Your task to perform on an android device: Open Google Maps and go to "Timeline" Image 0: 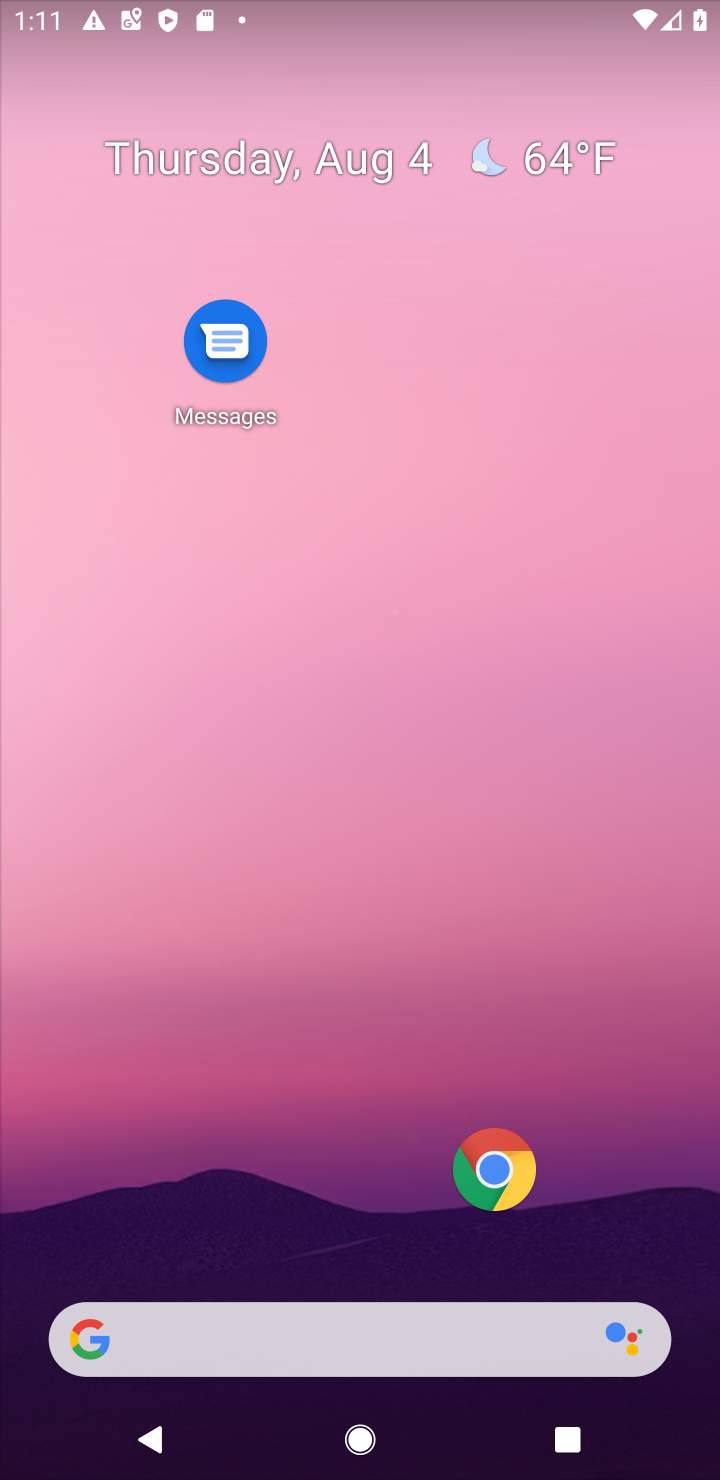
Step 0: drag from (260, 216) to (292, 31)
Your task to perform on an android device: Open Google Maps and go to "Timeline" Image 1: 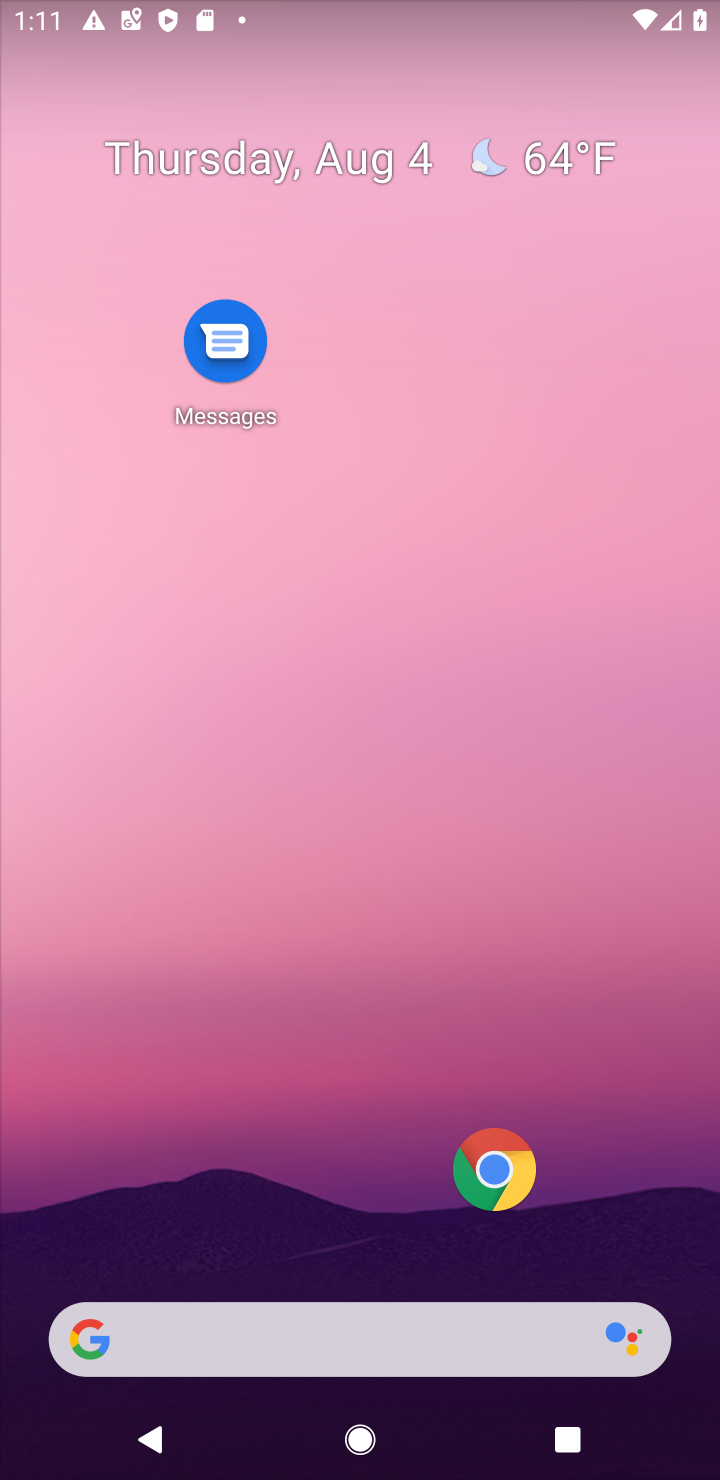
Step 1: drag from (255, 499) to (321, 0)
Your task to perform on an android device: Open Google Maps and go to "Timeline" Image 2: 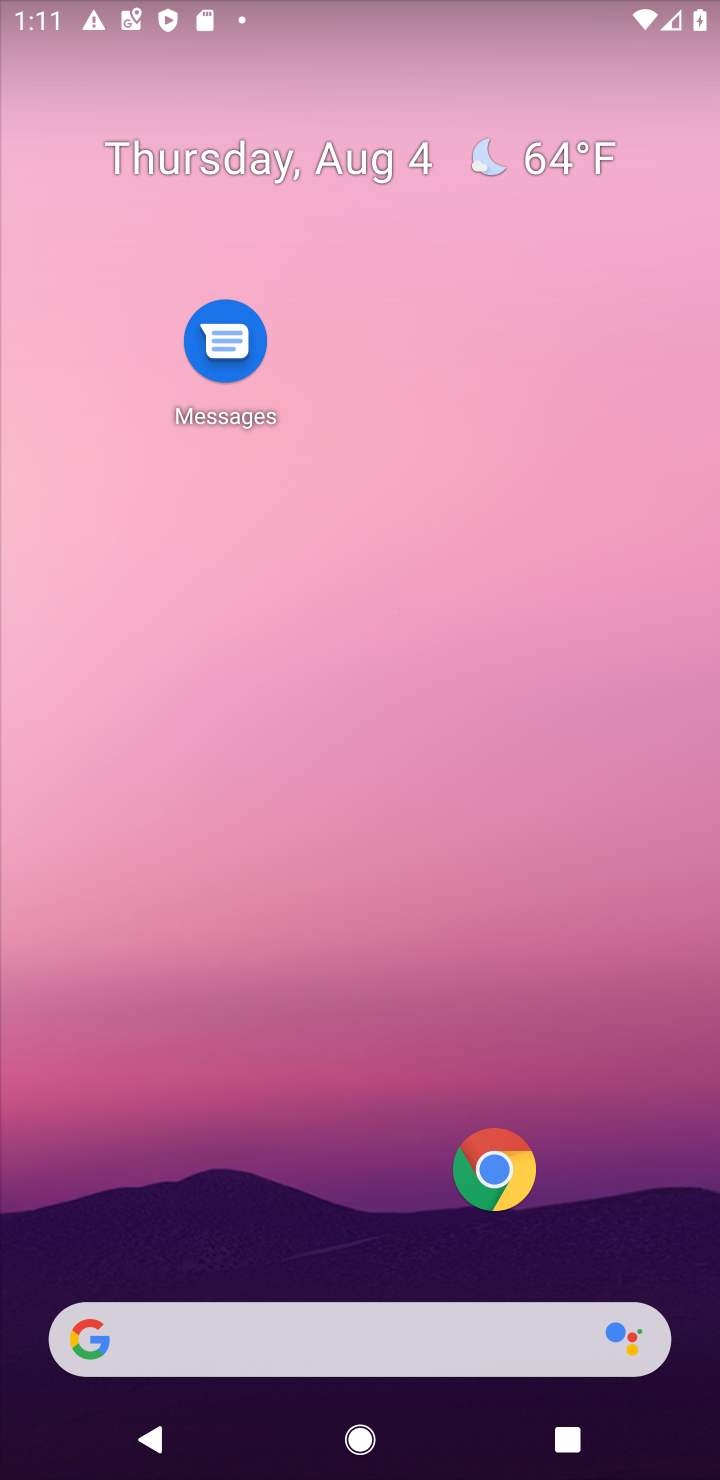
Step 2: drag from (346, 905) to (347, 66)
Your task to perform on an android device: Open Google Maps and go to "Timeline" Image 3: 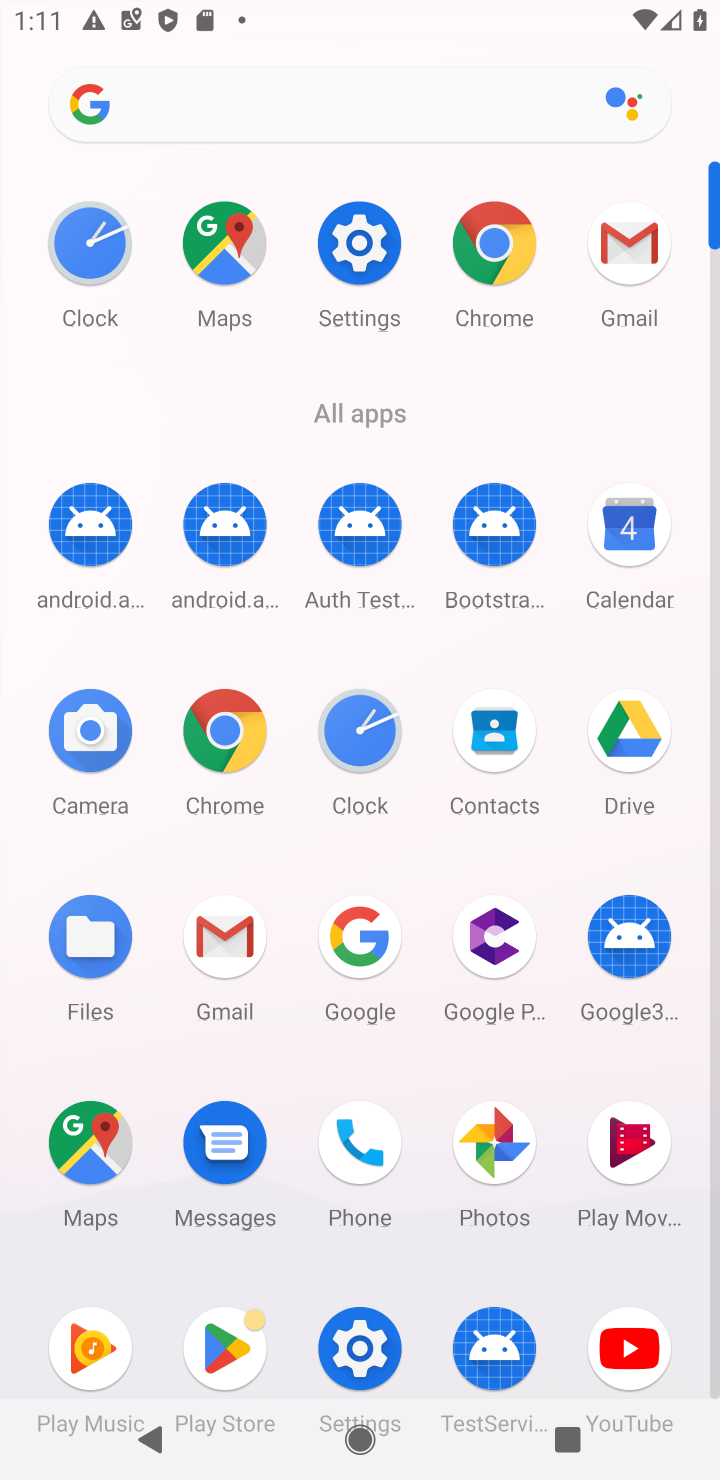
Step 3: click (90, 1176)
Your task to perform on an android device: Open Google Maps and go to "Timeline" Image 4: 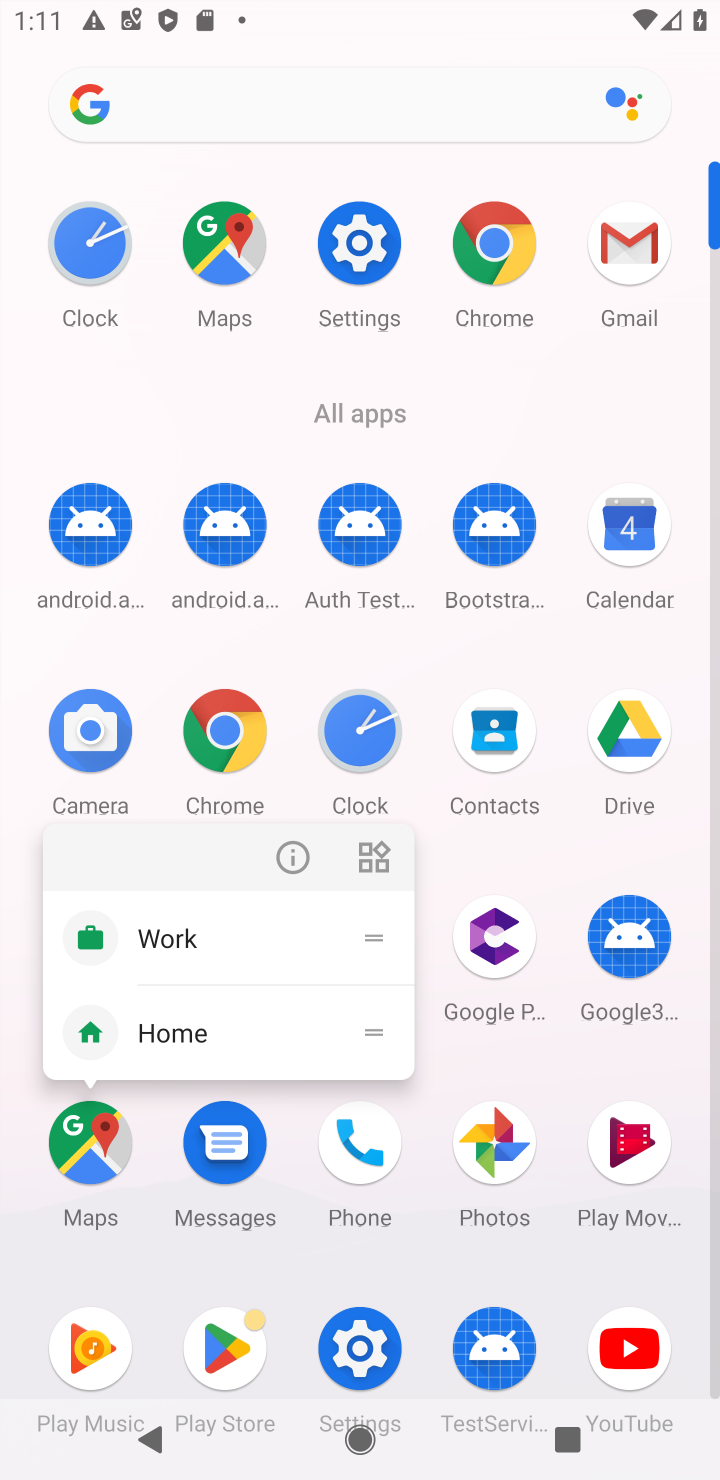
Step 4: click (68, 1166)
Your task to perform on an android device: Open Google Maps and go to "Timeline" Image 5: 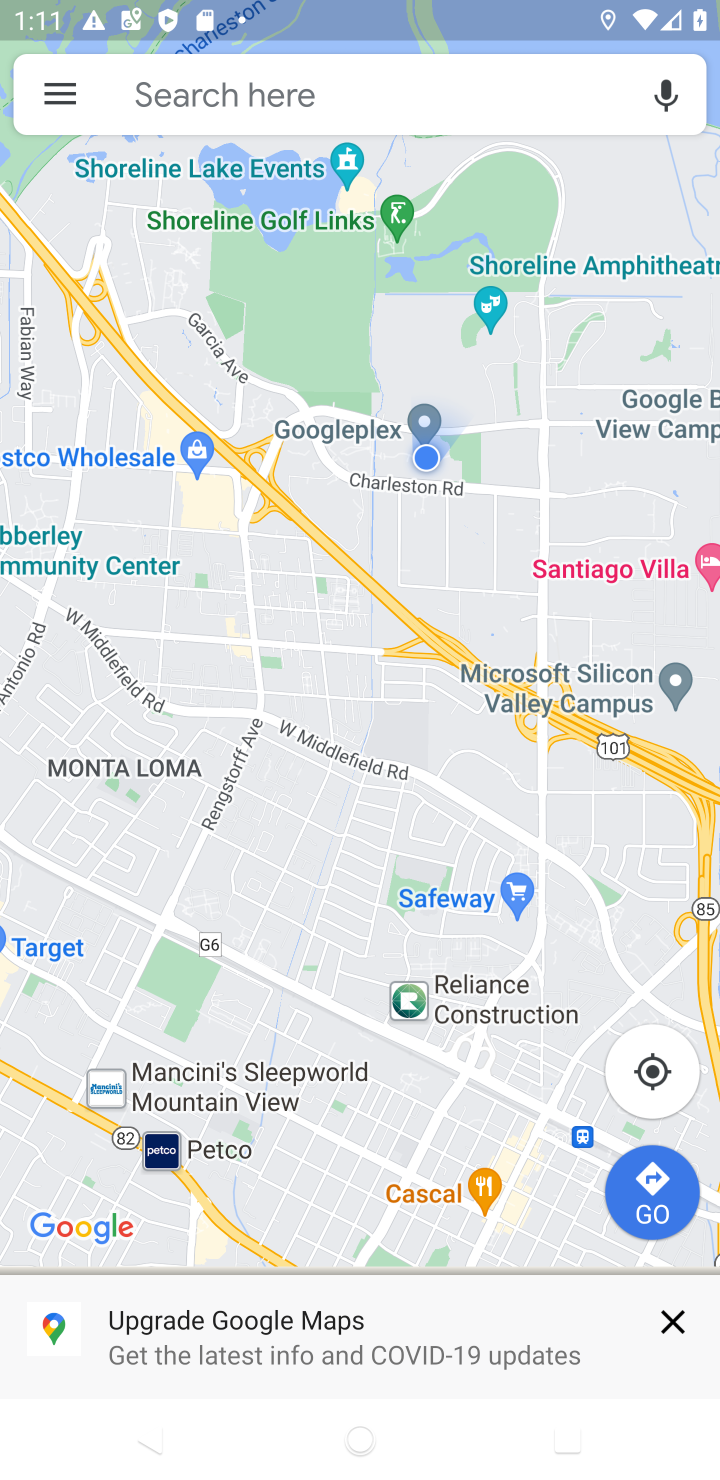
Step 5: click (72, 102)
Your task to perform on an android device: Open Google Maps and go to "Timeline" Image 6: 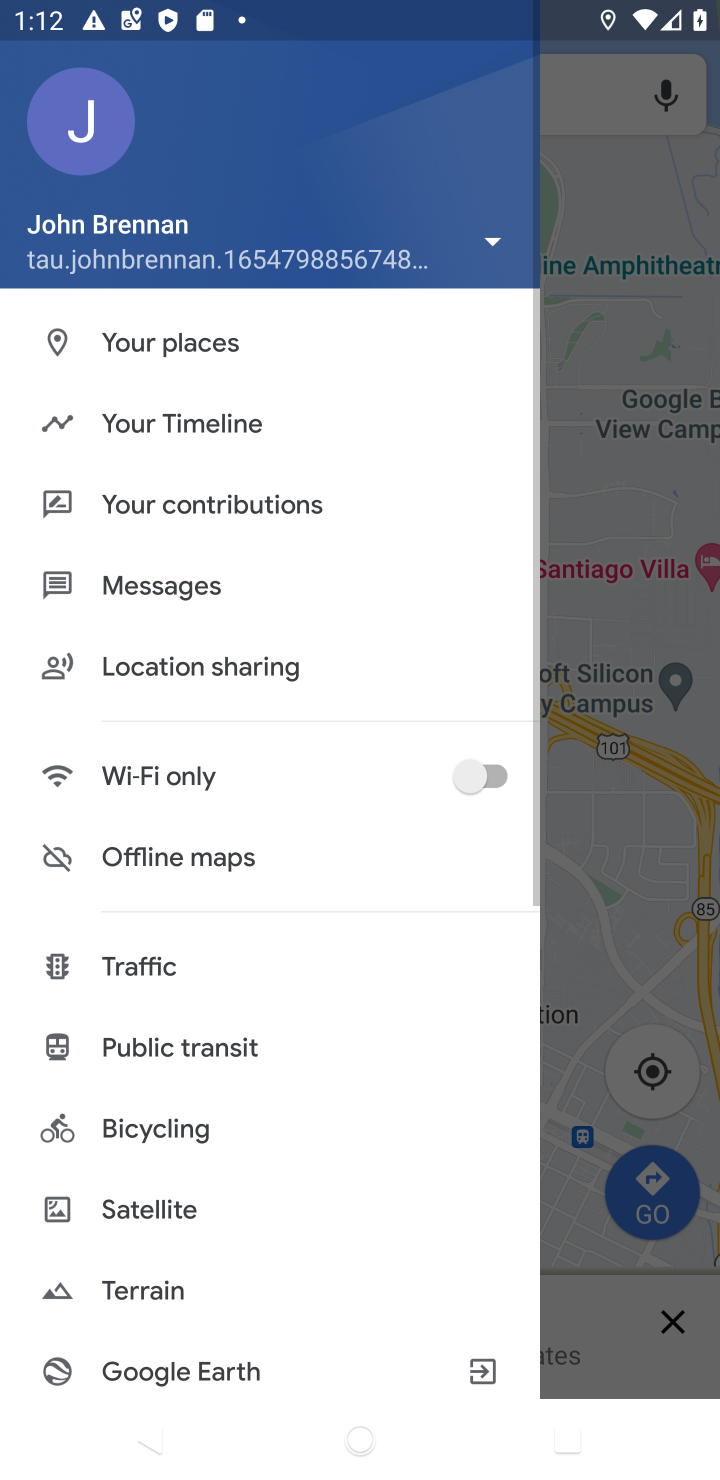
Step 6: click (178, 415)
Your task to perform on an android device: Open Google Maps and go to "Timeline" Image 7: 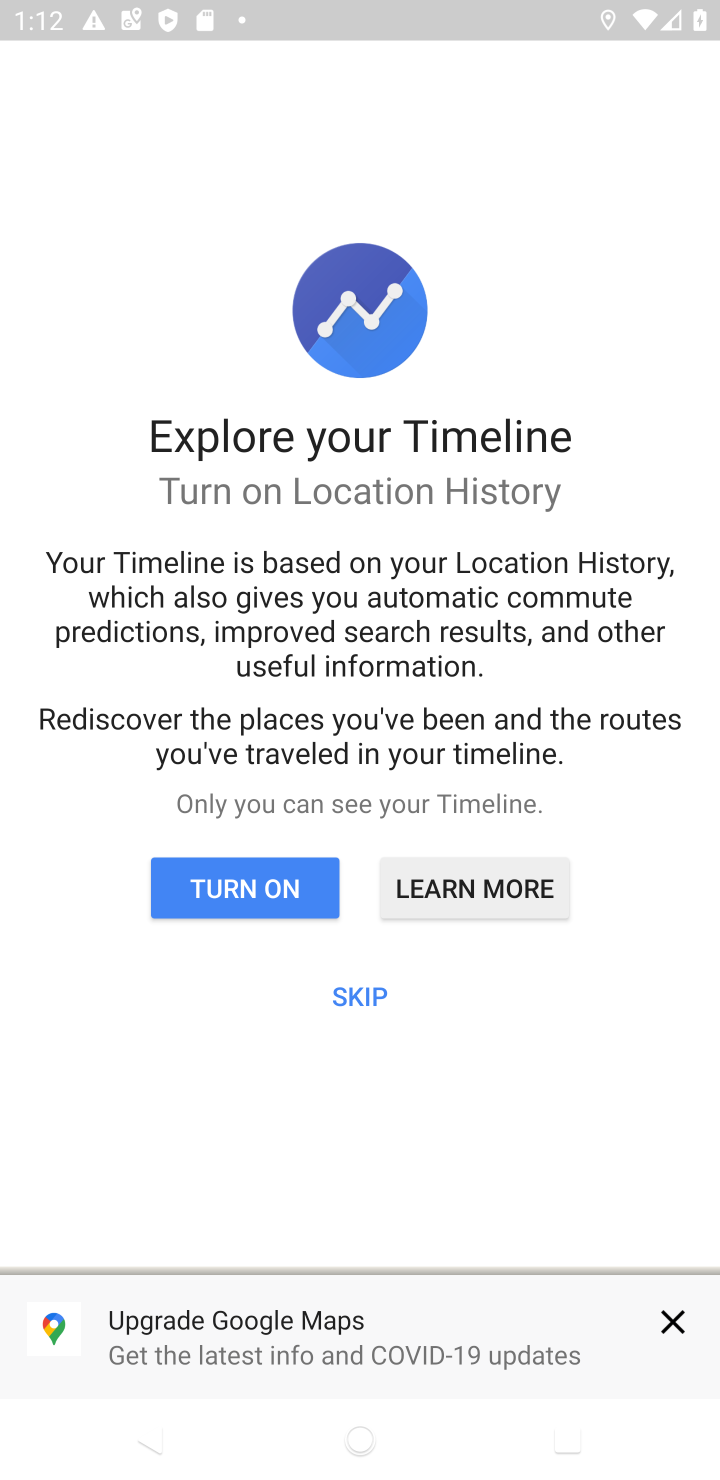
Step 7: click (331, 988)
Your task to perform on an android device: Open Google Maps and go to "Timeline" Image 8: 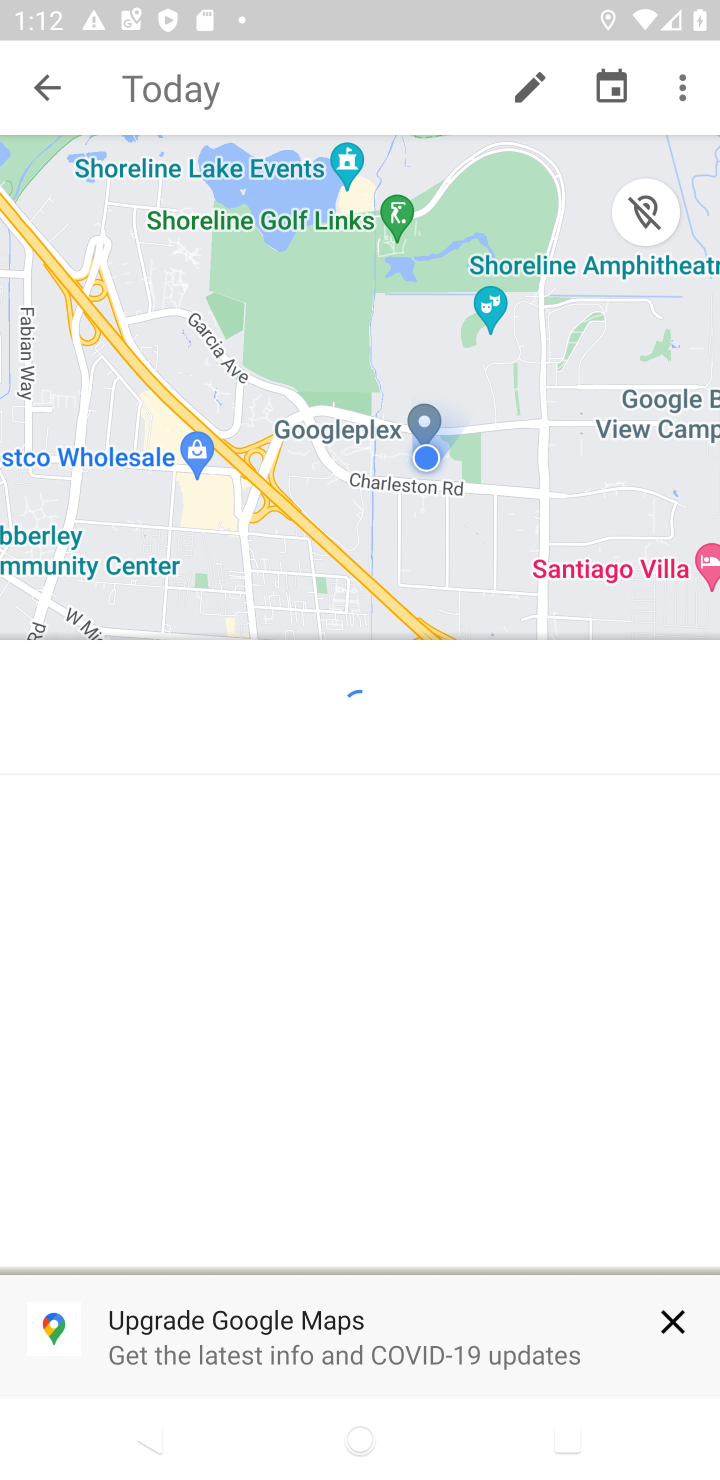
Step 8: click (355, 996)
Your task to perform on an android device: Open Google Maps and go to "Timeline" Image 9: 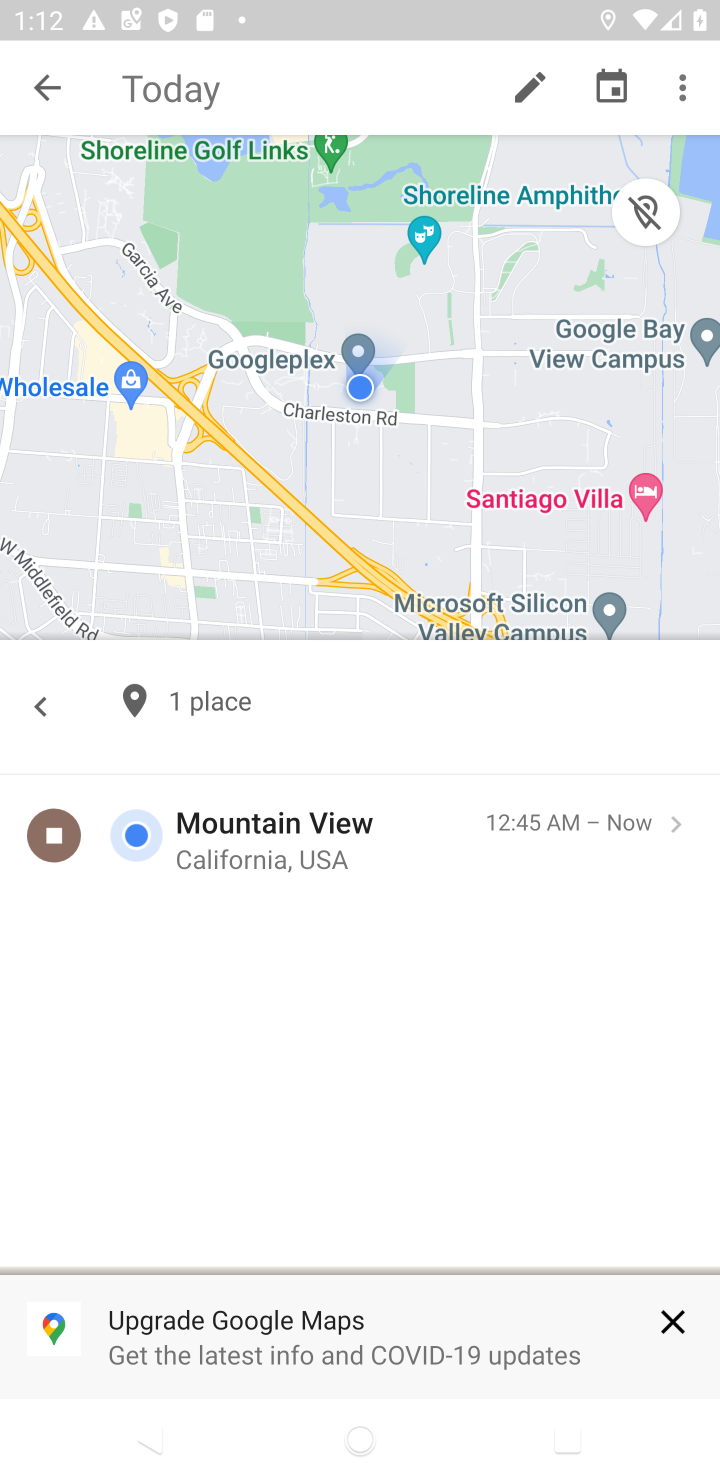
Step 9: task complete